Your task to perform on an android device: empty trash in google photos Image 0: 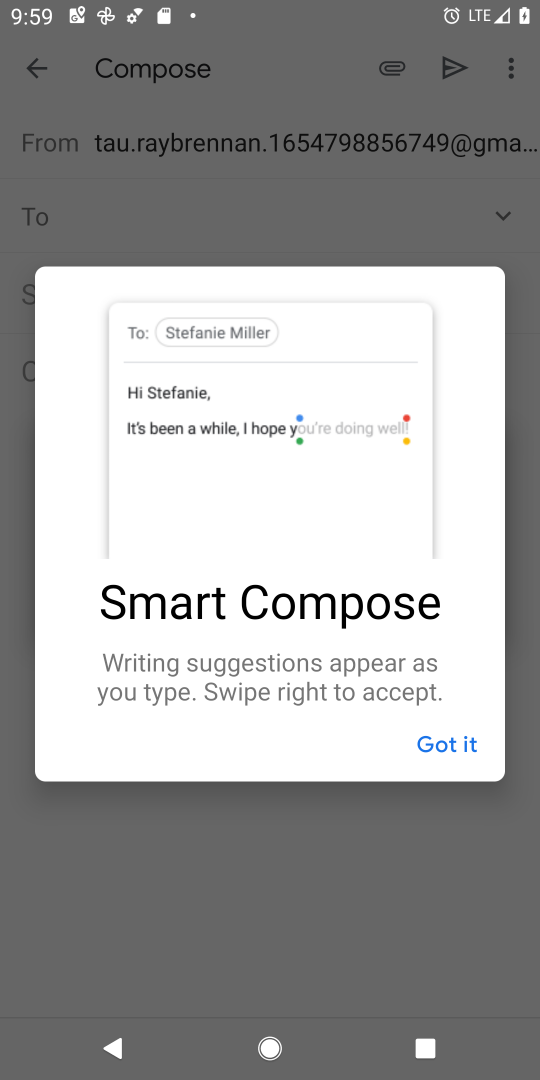
Step 0: press home button
Your task to perform on an android device: empty trash in google photos Image 1: 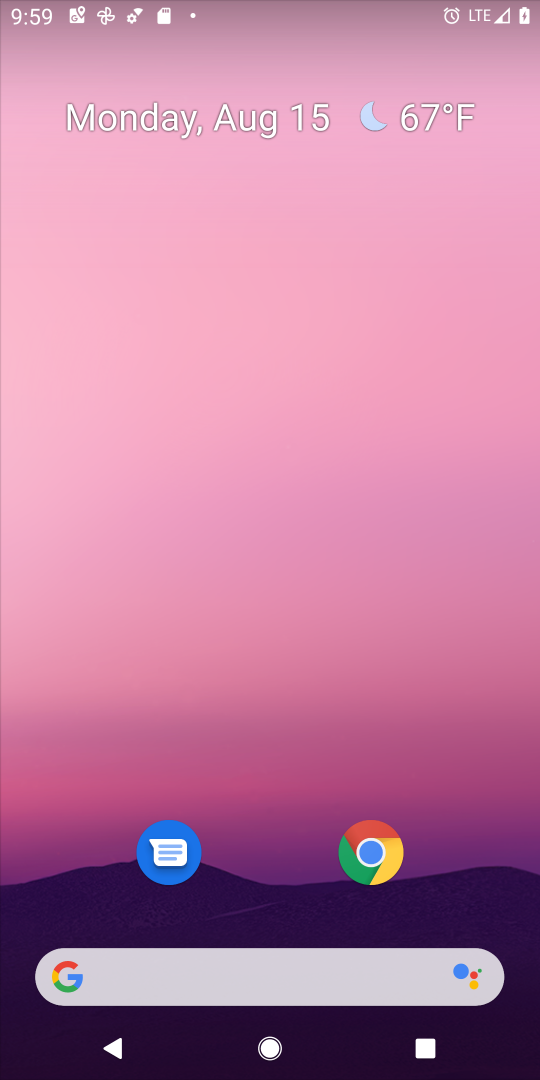
Step 1: drag from (186, 981) to (299, 62)
Your task to perform on an android device: empty trash in google photos Image 2: 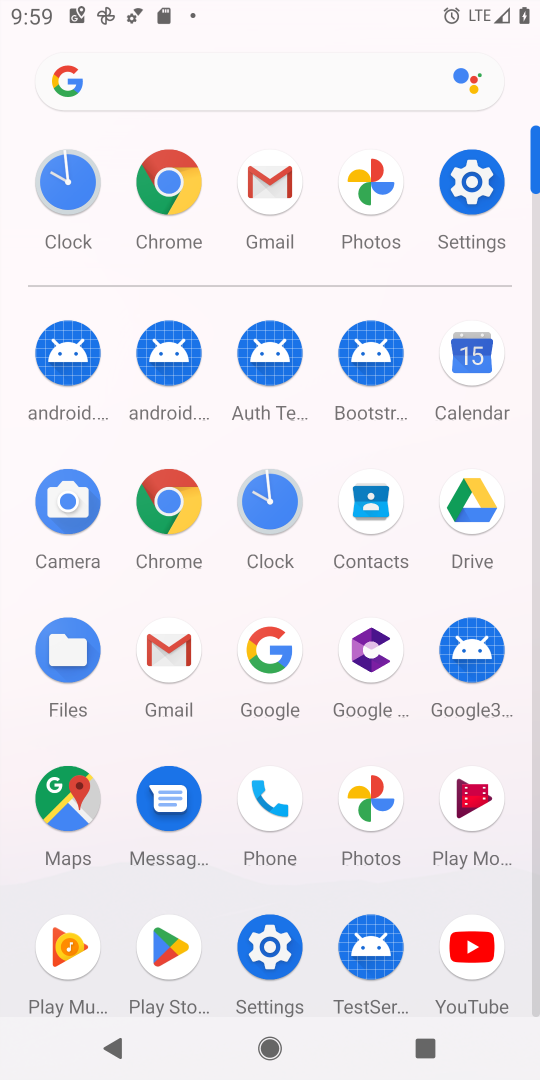
Step 2: click (369, 804)
Your task to perform on an android device: empty trash in google photos Image 3: 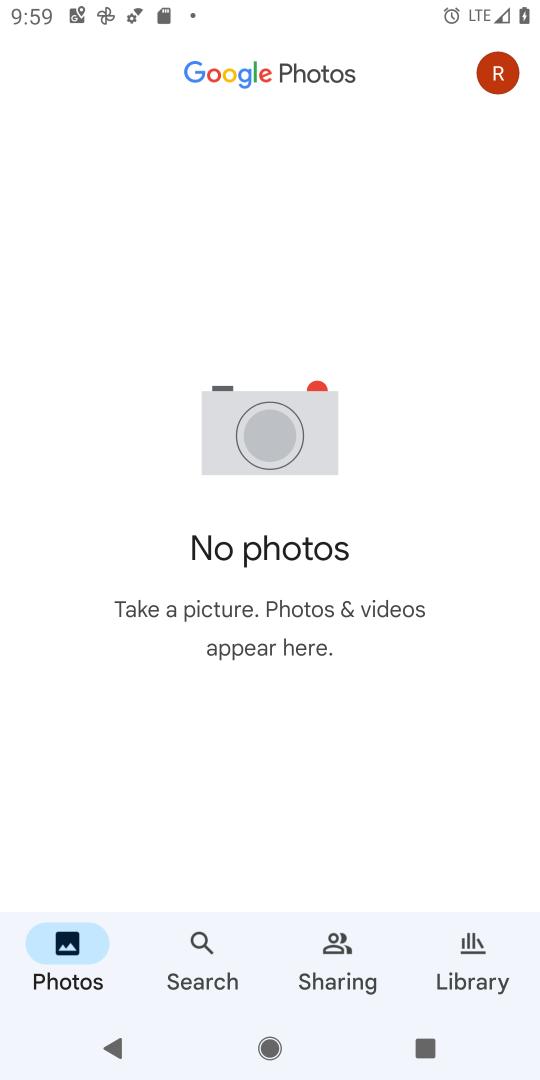
Step 3: click (475, 954)
Your task to perform on an android device: empty trash in google photos Image 4: 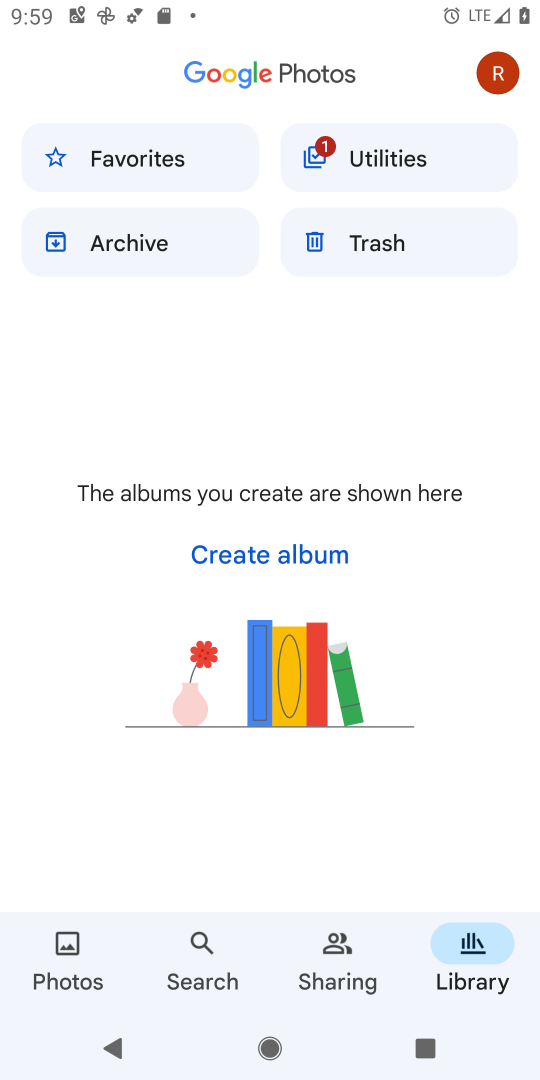
Step 4: click (391, 233)
Your task to perform on an android device: empty trash in google photos Image 5: 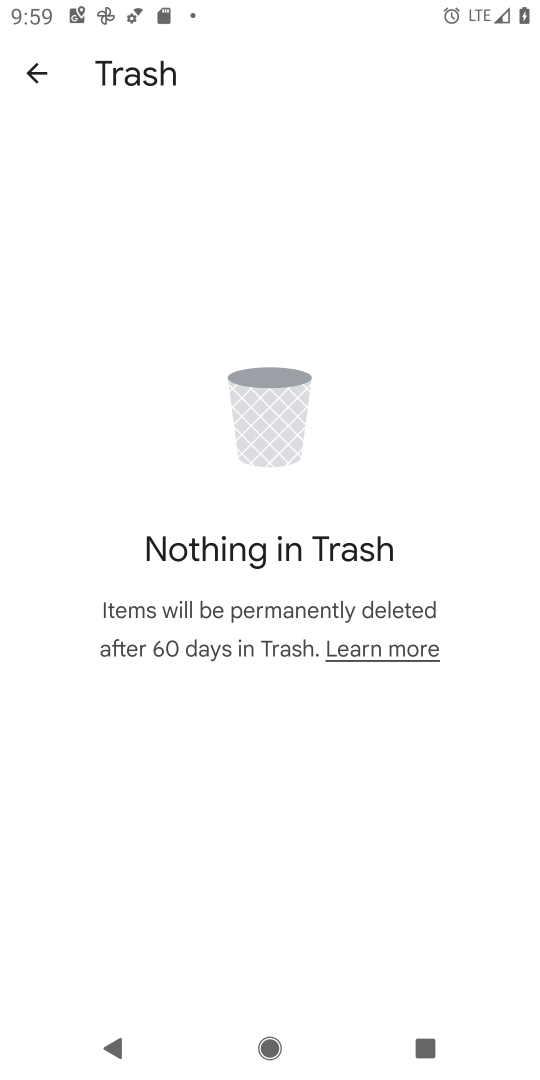
Step 5: task complete